Your task to perform on an android device: show emergency info Image 0: 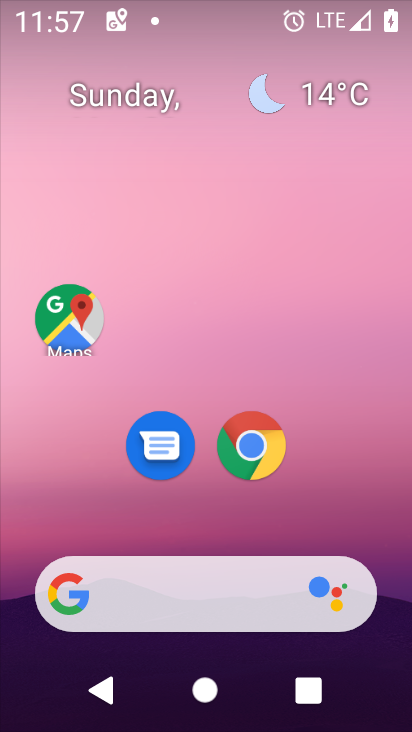
Step 0: drag from (225, 445) to (313, 0)
Your task to perform on an android device: show emergency info Image 1: 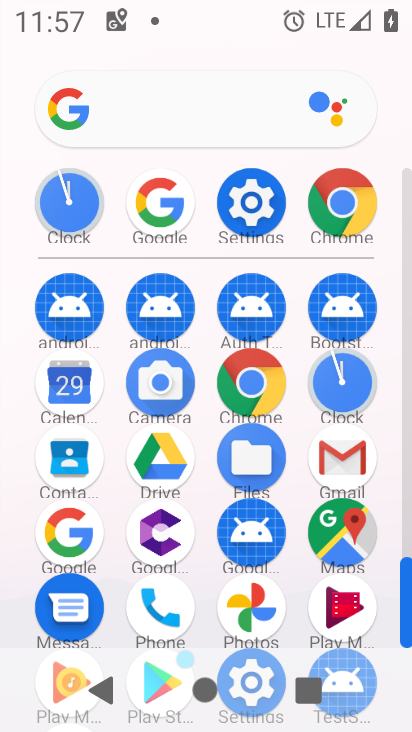
Step 1: click (242, 197)
Your task to perform on an android device: show emergency info Image 2: 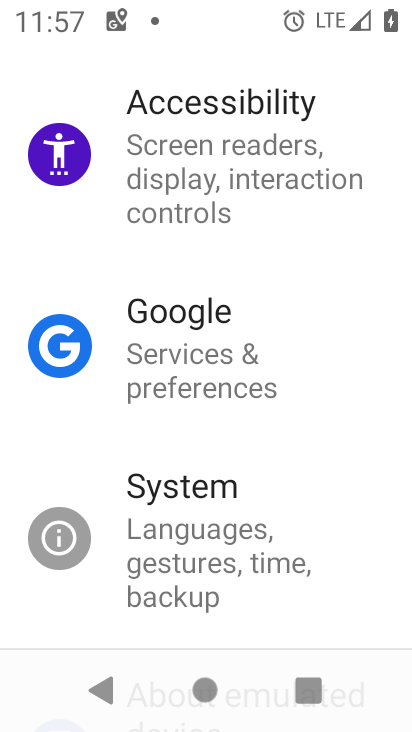
Step 2: drag from (235, 570) to (282, 163)
Your task to perform on an android device: show emergency info Image 3: 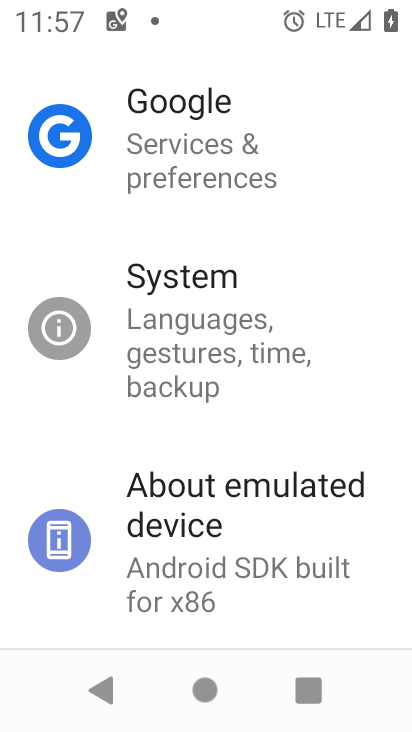
Step 3: drag from (259, 528) to (300, 281)
Your task to perform on an android device: show emergency info Image 4: 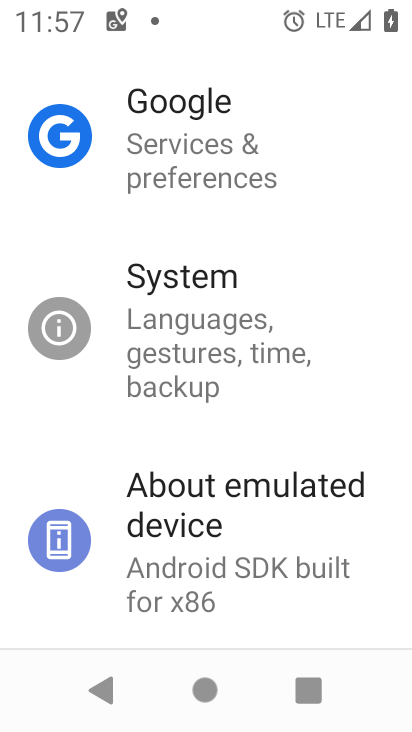
Step 4: click (243, 538)
Your task to perform on an android device: show emergency info Image 5: 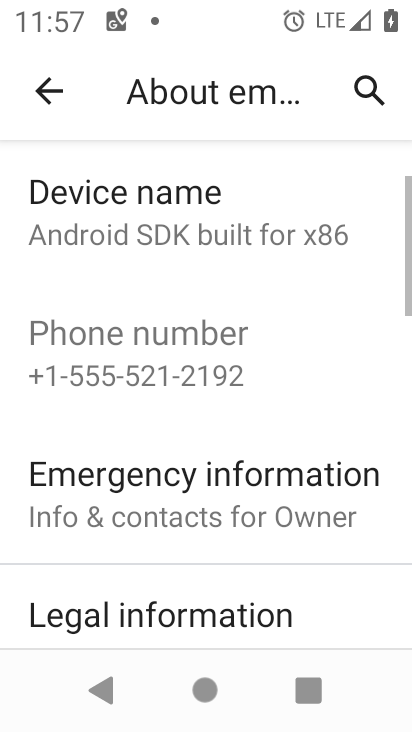
Step 5: click (213, 502)
Your task to perform on an android device: show emergency info Image 6: 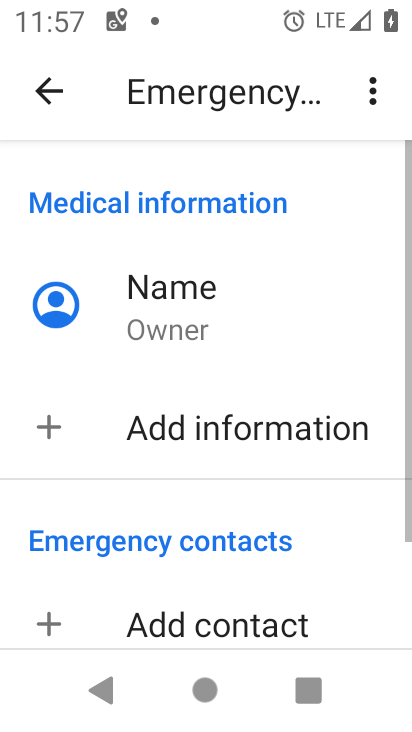
Step 6: task complete